Your task to perform on an android device: Open the calendar app, open the side menu, and click the "Day" option Image 0: 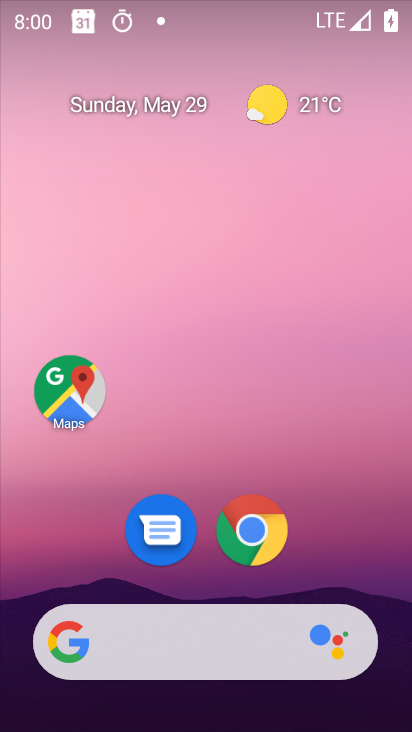
Step 0: press home button
Your task to perform on an android device: Open the calendar app, open the side menu, and click the "Day" option Image 1: 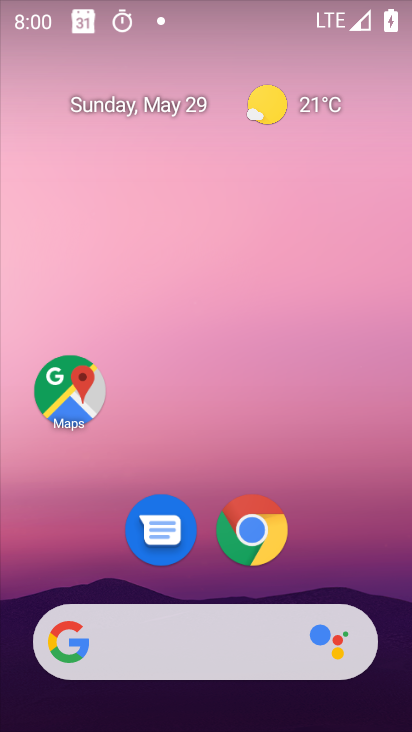
Step 1: drag from (266, 699) to (105, 178)
Your task to perform on an android device: Open the calendar app, open the side menu, and click the "Day" option Image 2: 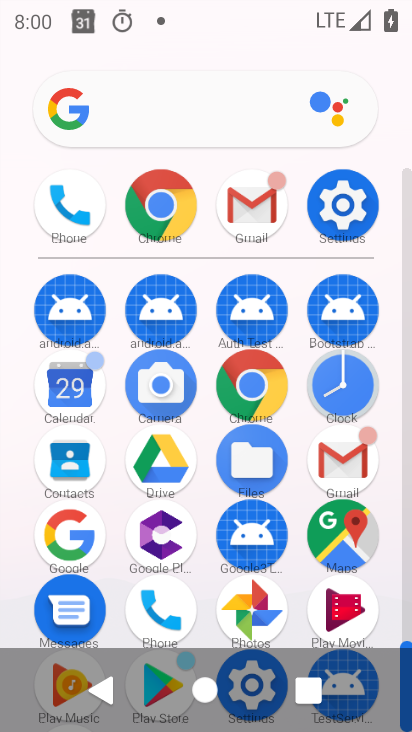
Step 2: click (98, 392)
Your task to perform on an android device: Open the calendar app, open the side menu, and click the "Day" option Image 3: 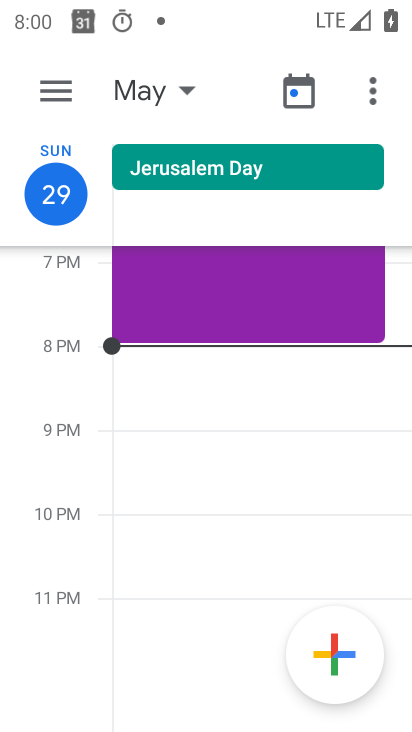
Step 3: click (48, 90)
Your task to perform on an android device: Open the calendar app, open the side menu, and click the "Day" option Image 4: 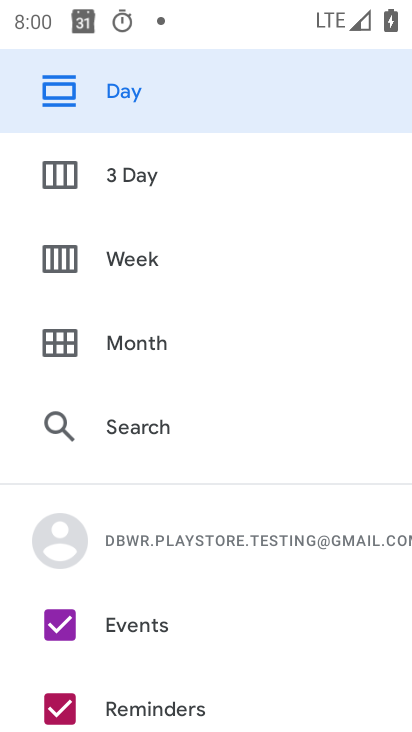
Step 4: click (103, 87)
Your task to perform on an android device: Open the calendar app, open the side menu, and click the "Day" option Image 5: 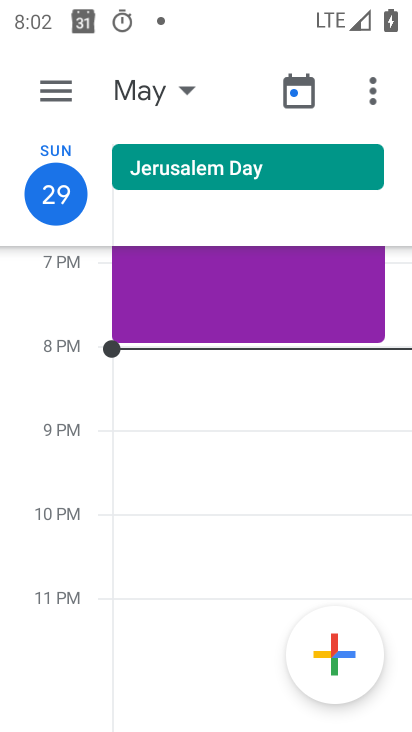
Step 5: task complete